Your task to perform on an android device: toggle notification dots Image 0: 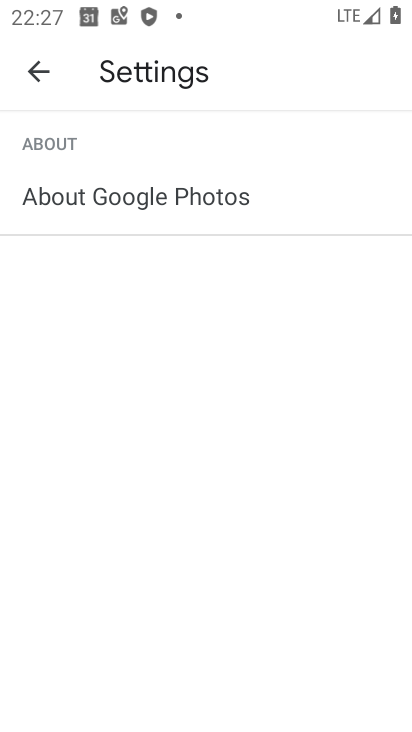
Step 0: press home button
Your task to perform on an android device: toggle notification dots Image 1: 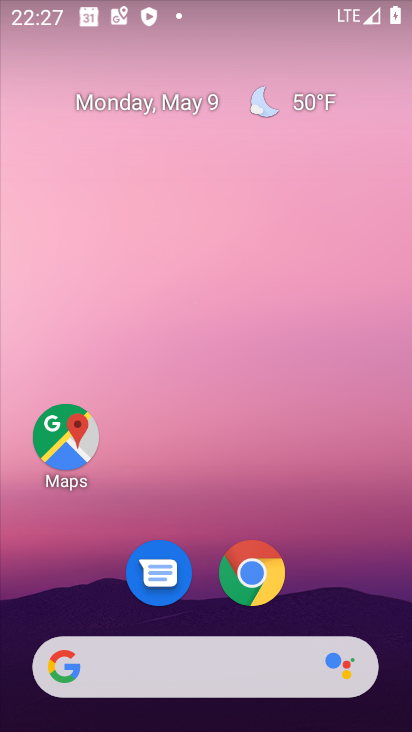
Step 1: drag from (330, 548) to (311, 167)
Your task to perform on an android device: toggle notification dots Image 2: 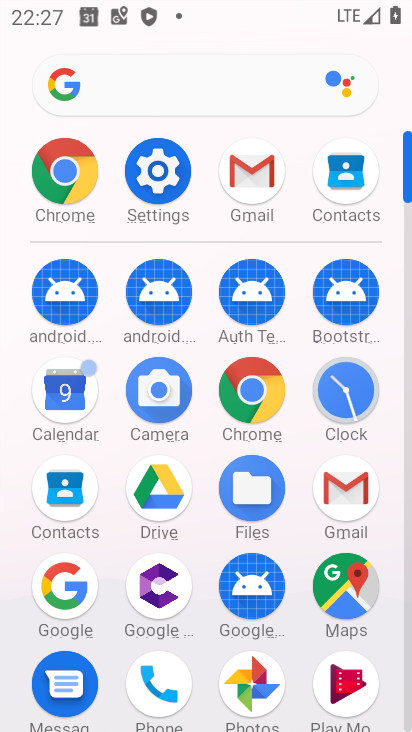
Step 2: click (171, 182)
Your task to perform on an android device: toggle notification dots Image 3: 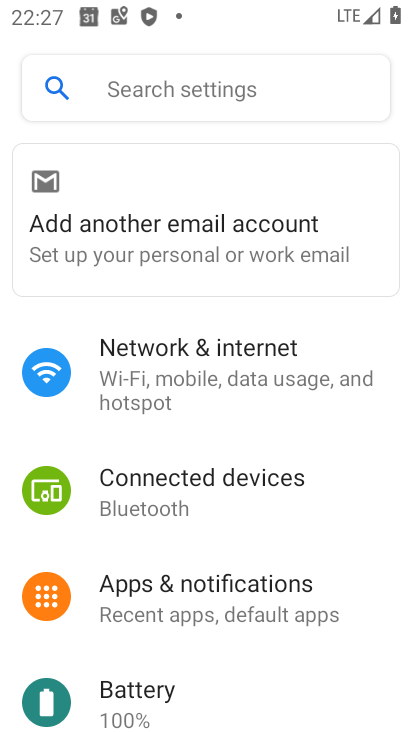
Step 3: click (230, 602)
Your task to perform on an android device: toggle notification dots Image 4: 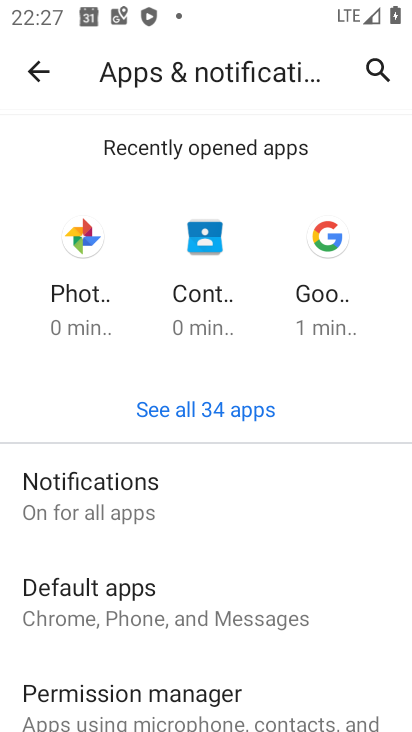
Step 4: click (128, 486)
Your task to perform on an android device: toggle notification dots Image 5: 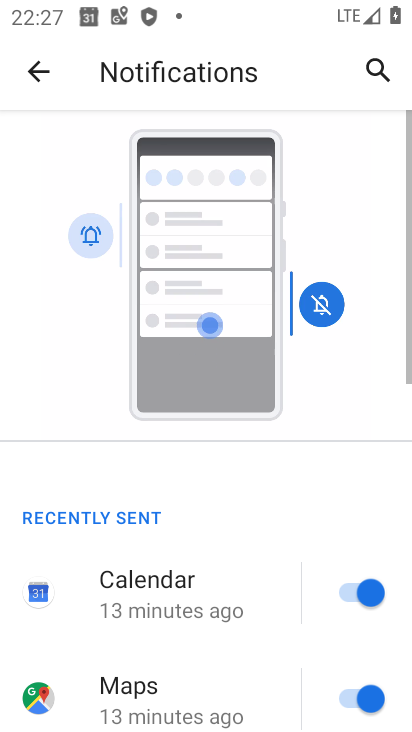
Step 5: drag from (282, 539) to (312, 105)
Your task to perform on an android device: toggle notification dots Image 6: 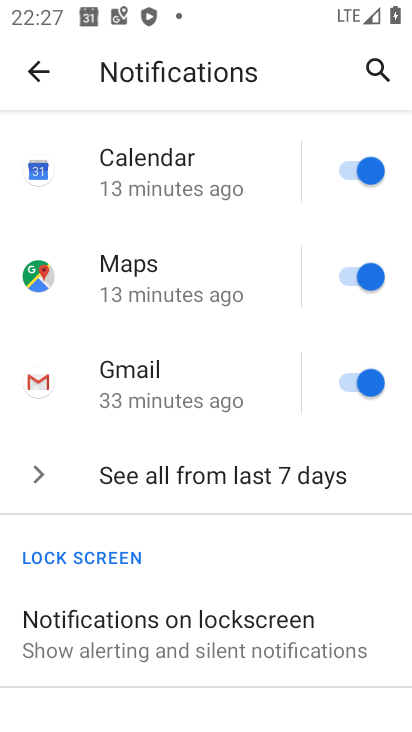
Step 6: drag from (215, 564) to (252, 189)
Your task to perform on an android device: toggle notification dots Image 7: 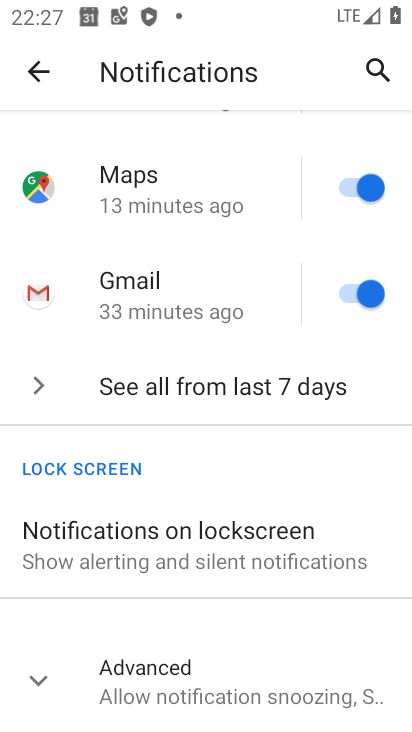
Step 7: click (165, 665)
Your task to perform on an android device: toggle notification dots Image 8: 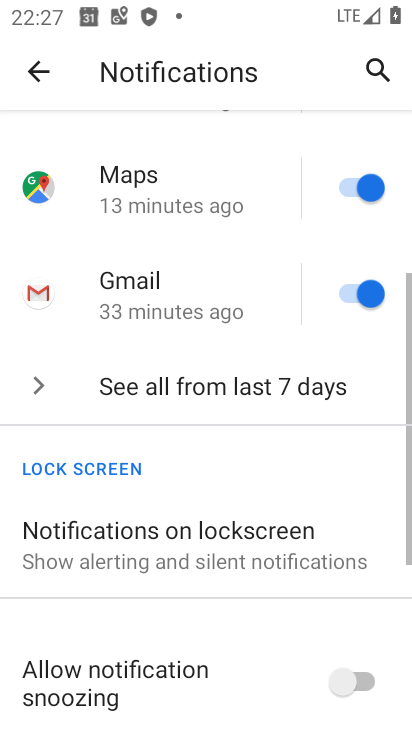
Step 8: drag from (209, 634) to (216, 186)
Your task to perform on an android device: toggle notification dots Image 9: 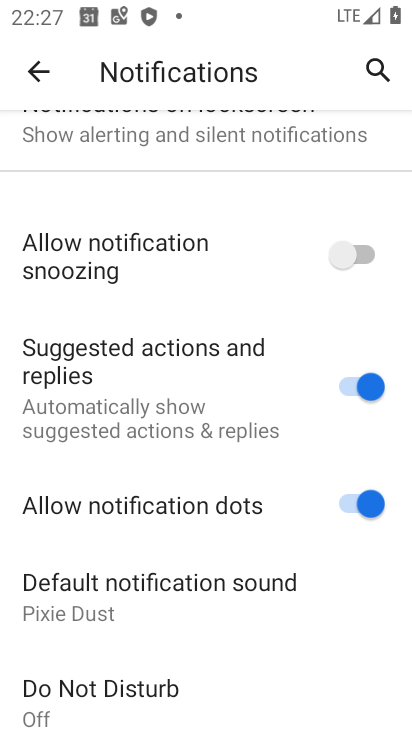
Step 9: click (371, 509)
Your task to perform on an android device: toggle notification dots Image 10: 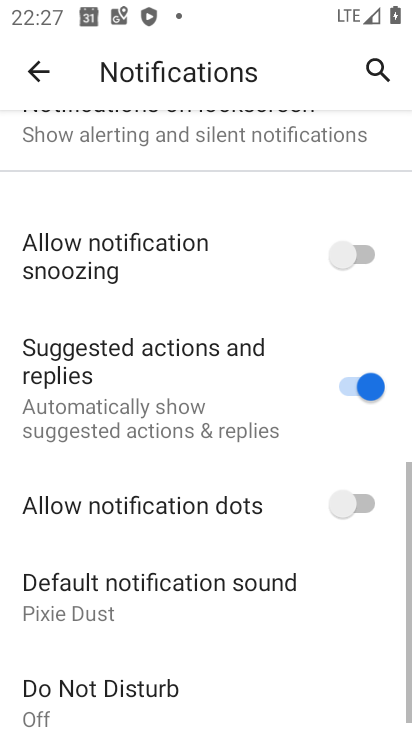
Step 10: task complete